Your task to perform on an android device: Clear all items from cart on costco. Image 0: 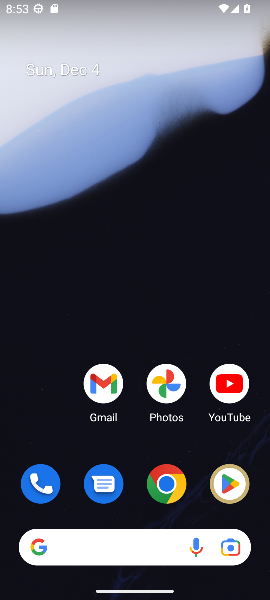
Step 0: click (168, 486)
Your task to perform on an android device: Clear all items from cart on costco. Image 1: 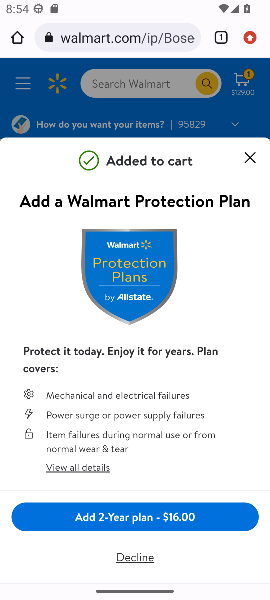
Step 1: click (132, 40)
Your task to perform on an android device: Clear all items from cart on costco. Image 2: 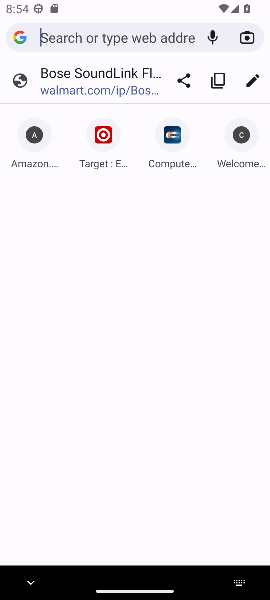
Step 2: type "costco.com"
Your task to perform on an android device: Clear all items from cart on costco. Image 3: 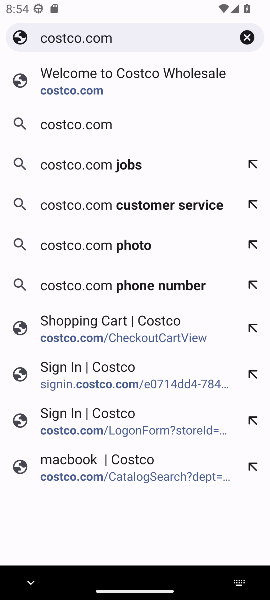
Step 3: click (65, 94)
Your task to perform on an android device: Clear all items from cart on costco. Image 4: 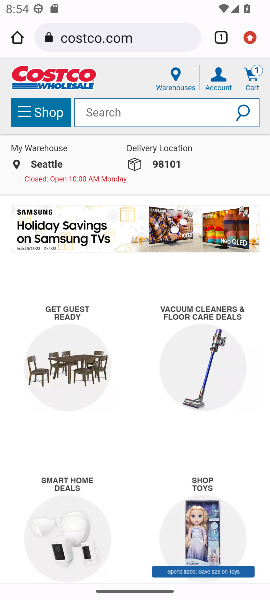
Step 4: click (250, 80)
Your task to perform on an android device: Clear all items from cart on costco. Image 5: 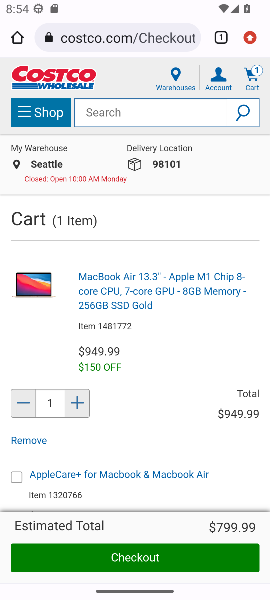
Step 5: drag from (113, 446) to (108, 198)
Your task to perform on an android device: Clear all items from cart on costco. Image 6: 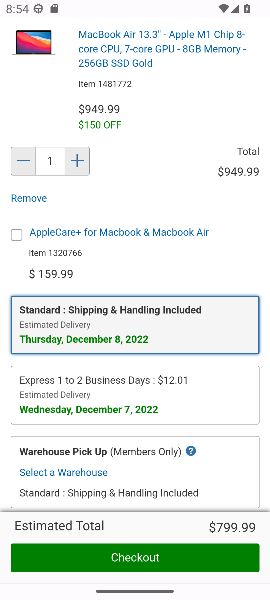
Step 6: drag from (134, 384) to (139, 199)
Your task to perform on an android device: Clear all items from cart on costco. Image 7: 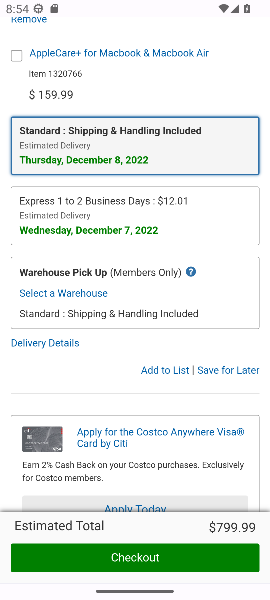
Step 7: click (214, 372)
Your task to perform on an android device: Clear all items from cart on costco. Image 8: 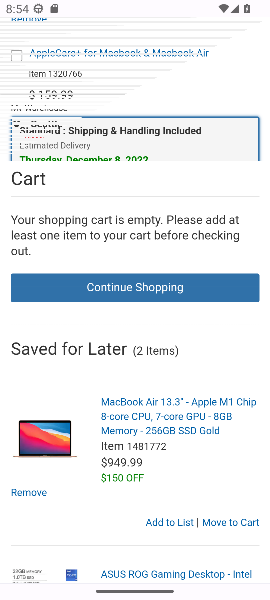
Step 8: task complete